Your task to perform on an android device: visit the assistant section in the google photos Image 0: 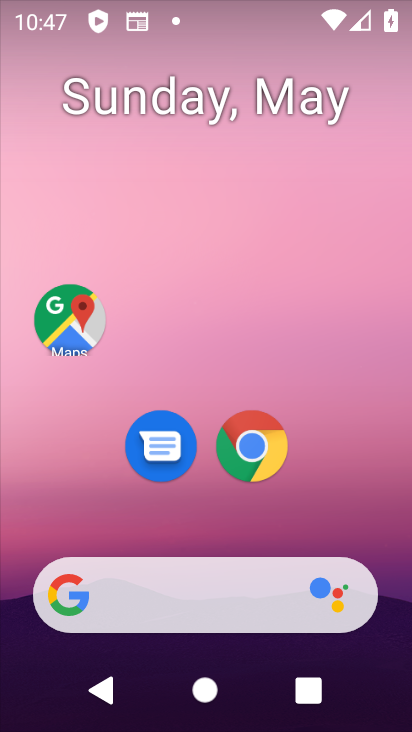
Step 0: drag from (160, 545) to (242, 101)
Your task to perform on an android device: visit the assistant section in the google photos Image 1: 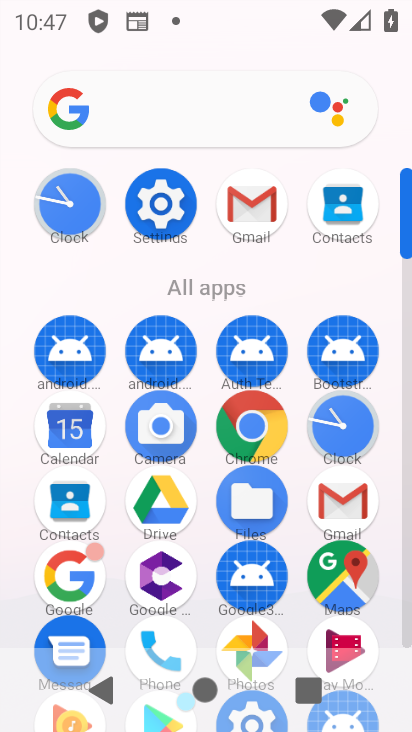
Step 1: drag from (259, 607) to (316, 419)
Your task to perform on an android device: visit the assistant section in the google photos Image 2: 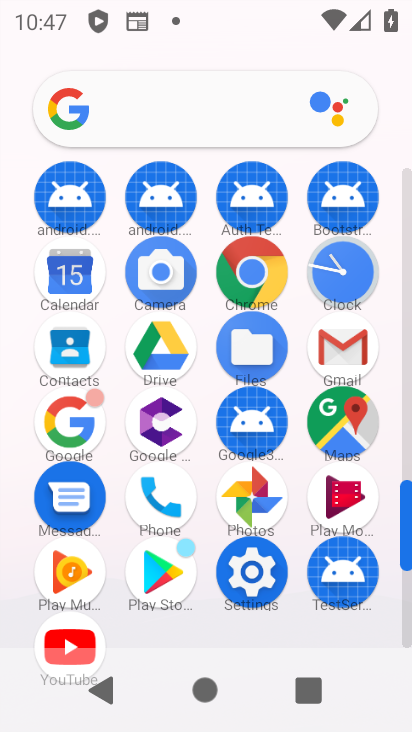
Step 2: click (270, 509)
Your task to perform on an android device: visit the assistant section in the google photos Image 3: 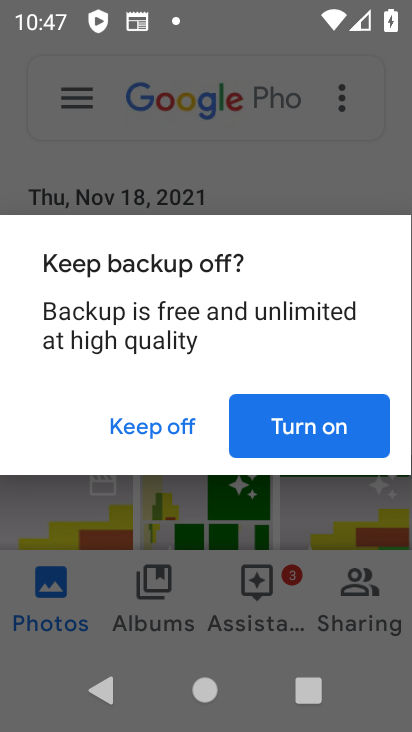
Step 3: click (300, 433)
Your task to perform on an android device: visit the assistant section in the google photos Image 4: 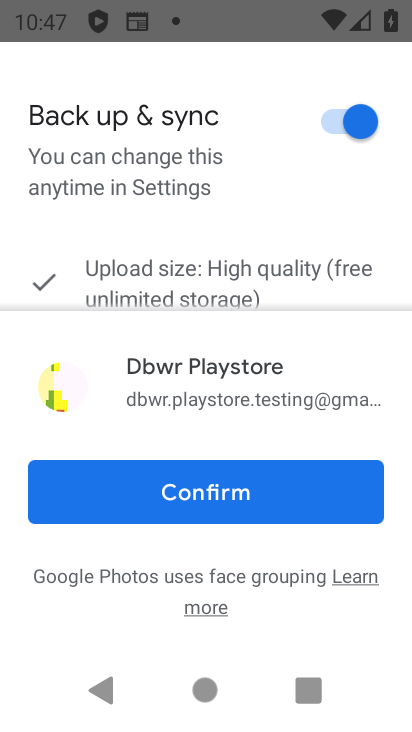
Step 4: click (244, 486)
Your task to perform on an android device: visit the assistant section in the google photos Image 5: 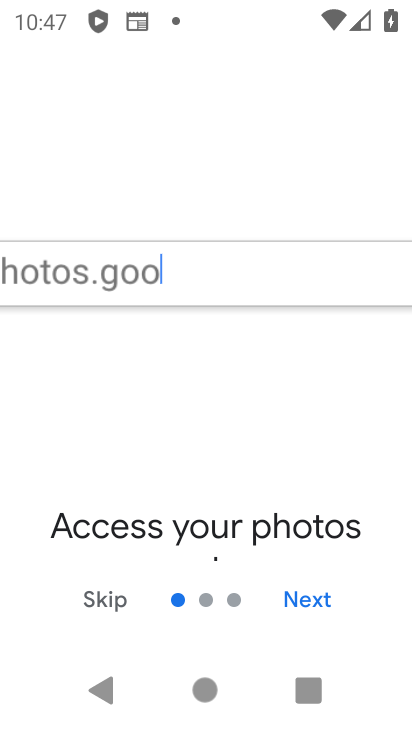
Step 5: click (309, 604)
Your task to perform on an android device: visit the assistant section in the google photos Image 6: 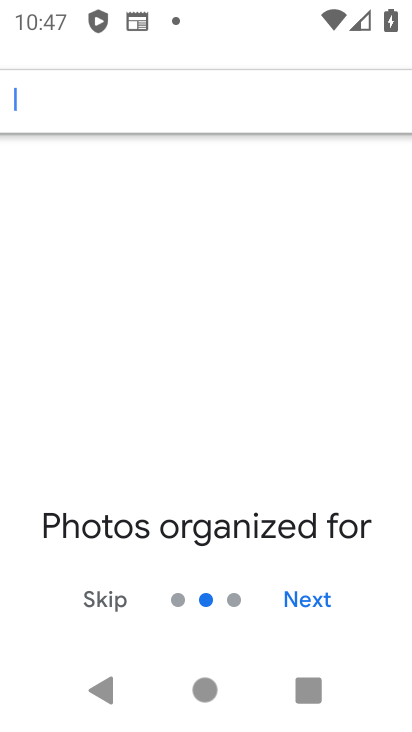
Step 6: click (309, 604)
Your task to perform on an android device: visit the assistant section in the google photos Image 7: 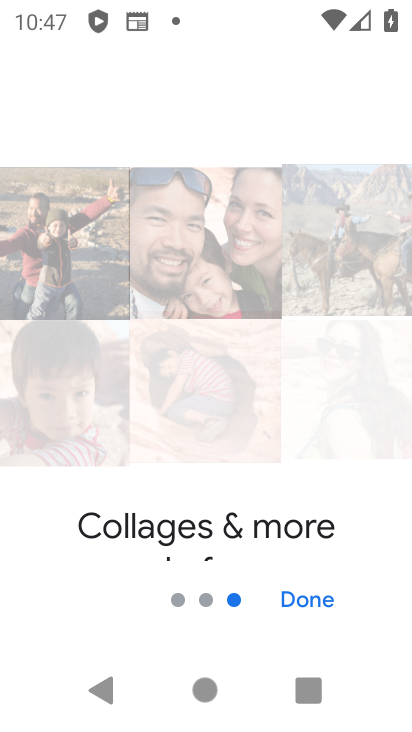
Step 7: click (310, 605)
Your task to perform on an android device: visit the assistant section in the google photos Image 8: 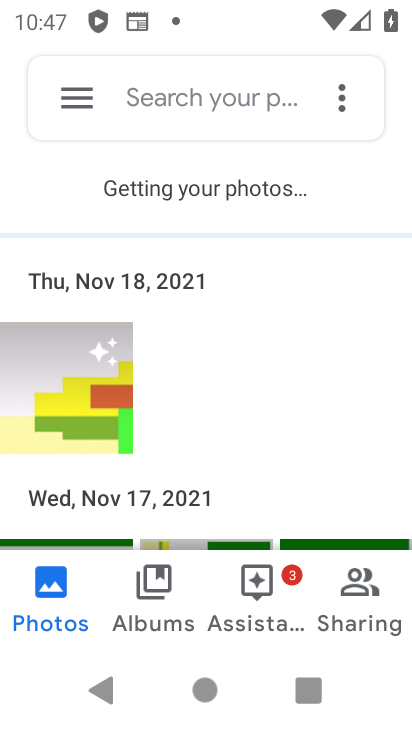
Step 8: click (262, 595)
Your task to perform on an android device: visit the assistant section in the google photos Image 9: 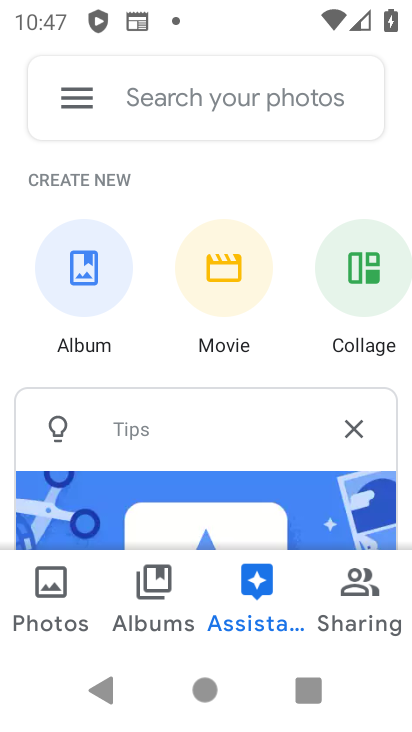
Step 9: task complete